Your task to perform on an android device: find photos in the google photos app Image 0: 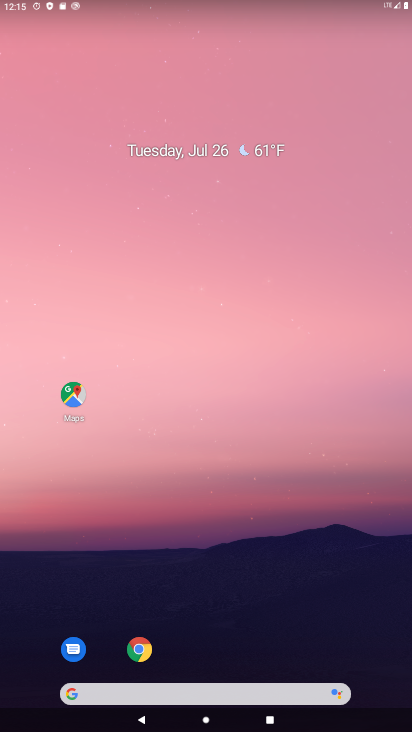
Step 0: drag from (244, 670) to (350, 13)
Your task to perform on an android device: find photos in the google photos app Image 1: 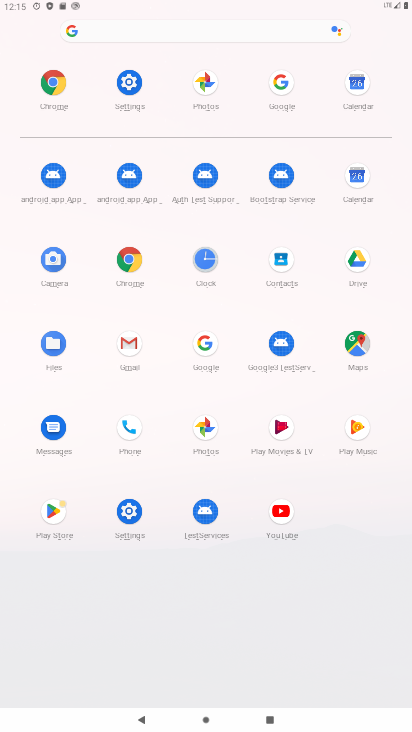
Step 1: click (205, 424)
Your task to perform on an android device: find photos in the google photos app Image 2: 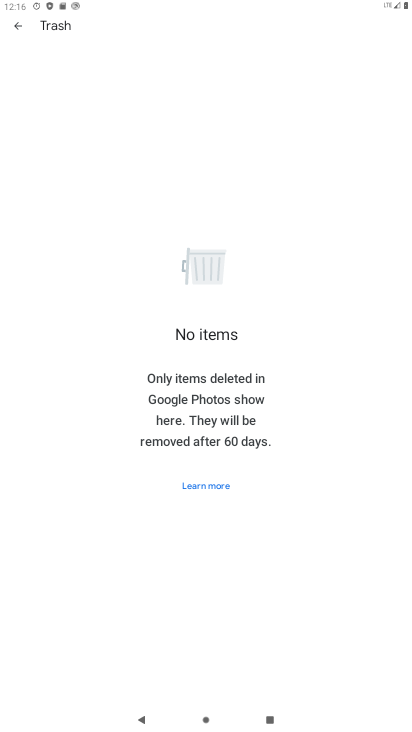
Step 2: click (18, 20)
Your task to perform on an android device: find photos in the google photos app Image 3: 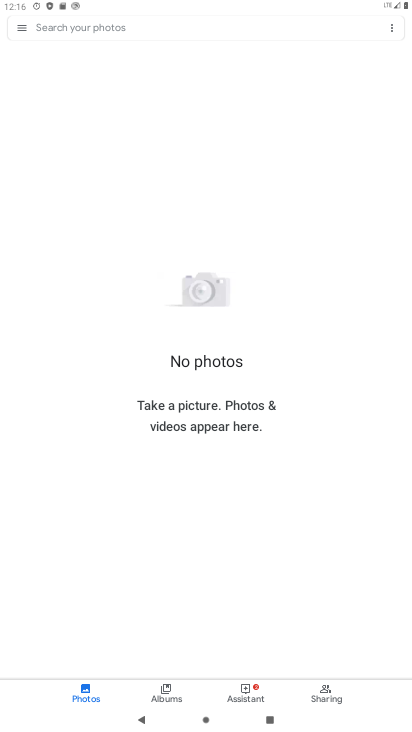
Step 3: click (19, 33)
Your task to perform on an android device: find photos in the google photos app Image 4: 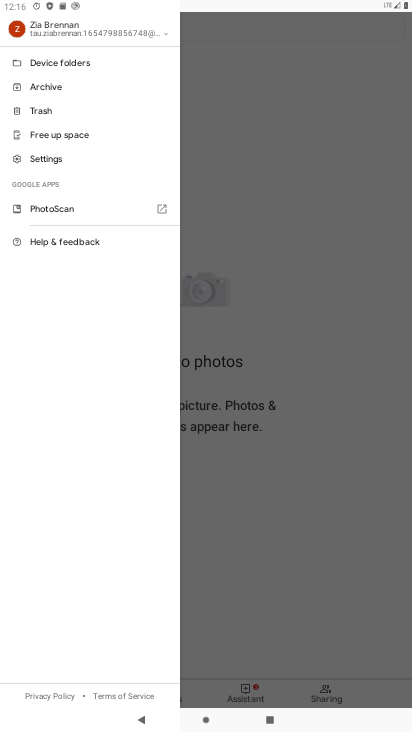
Step 4: click (215, 144)
Your task to perform on an android device: find photos in the google photos app Image 5: 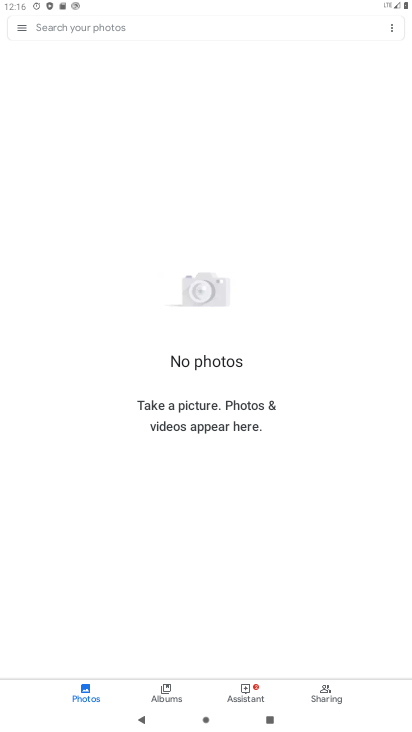
Step 5: task complete